Your task to perform on an android device: find which apps use the phone's location Image 0: 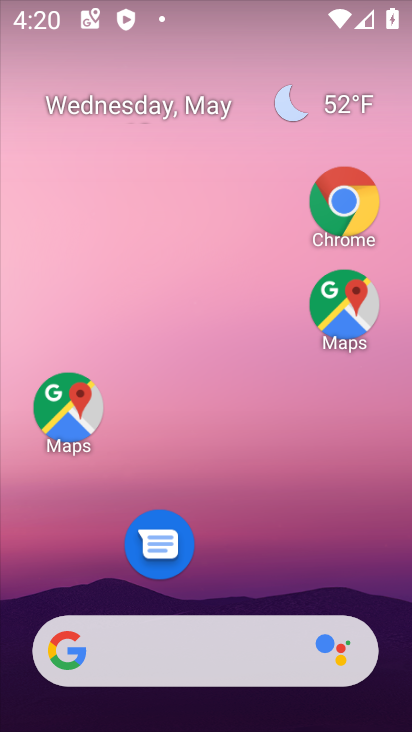
Step 0: drag from (264, 572) to (264, 5)
Your task to perform on an android device: find which apps use the phone's location Image 1: 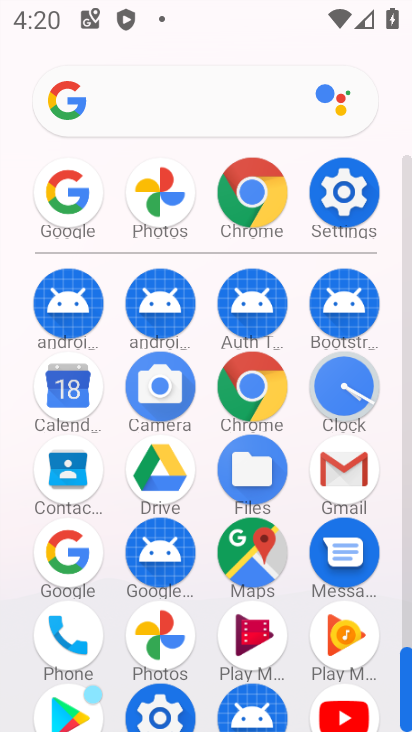
Step 1: click (337, 194)
Your task to perform on an android device: find which apps use the phone's location Image 2: 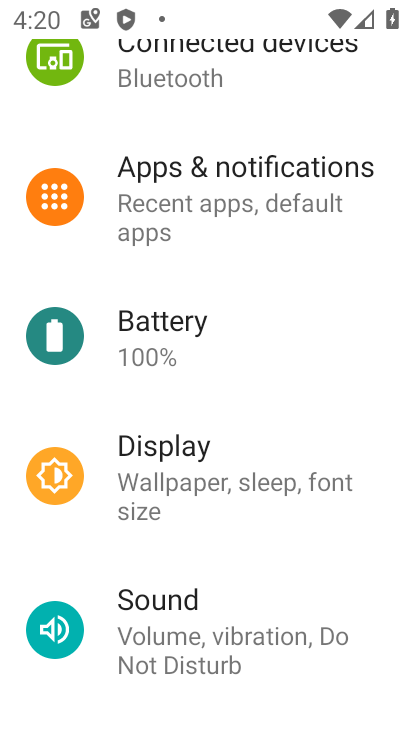
Step 2: drag from (214, 595) to (146, 121)
Your task to perform on an android device: find which apps use the phone's location Image 3: 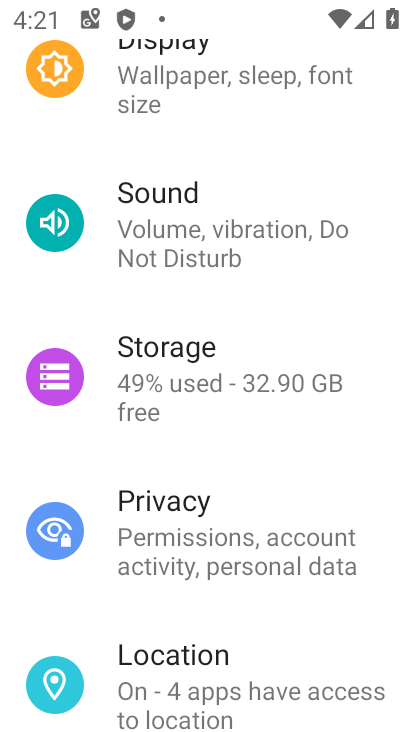
Step 3: click (197, 679)
Your task to perform on an android device: find which apps use the phone's location Image 4: 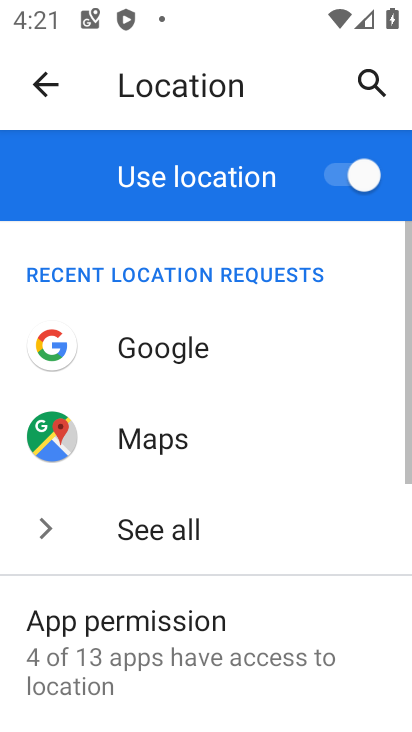
Step 4: click (123, 640)
Your task to perform on an android device: find which apps use the phone's location Image 5: 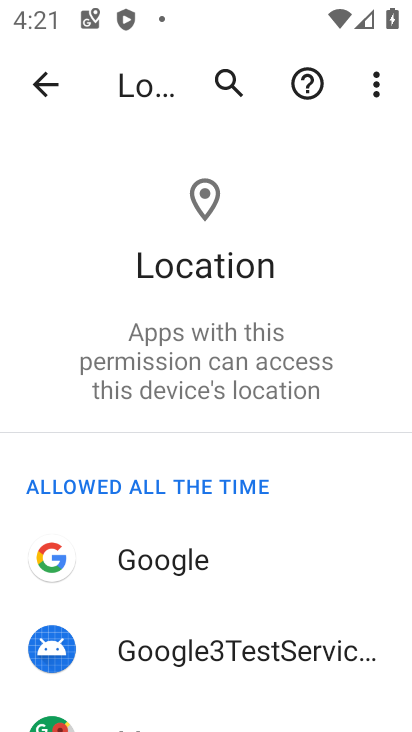
Step 5: task complete